Your task to perform on an android device: Open settings Image 0: 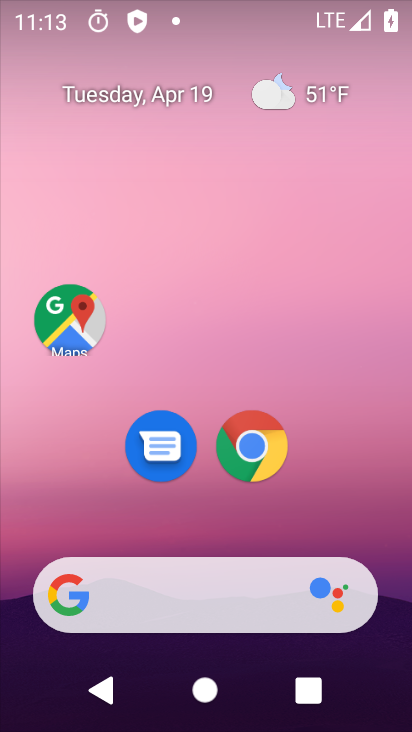
Step 0: click (250, 457)
Your task to perform on an android device: Open settings Image 1: 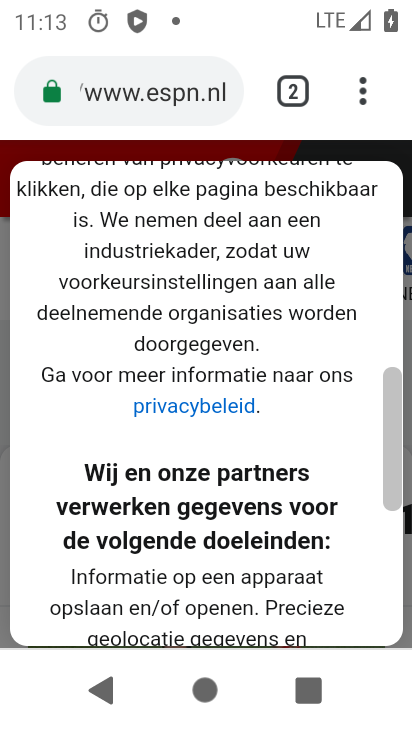
Step 1: press home button
Your task to perform on an android device: Open settings Image 2: 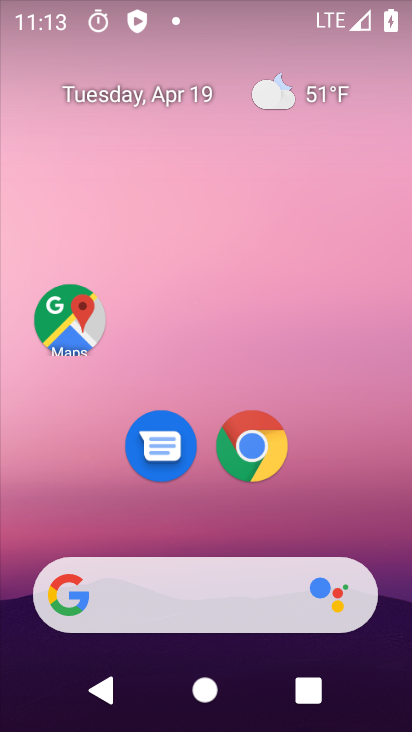
Step 2: drag from (303, 284) to (279, 150)
Your task to perform on an android device: Open settings Image 3: 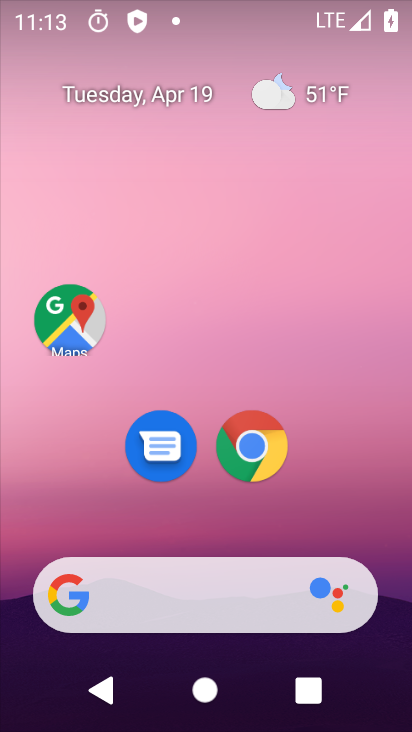
Step 3: drag from (389, 524) to (355, 97)
Your task to perform on an android device: Open settings Image 4: 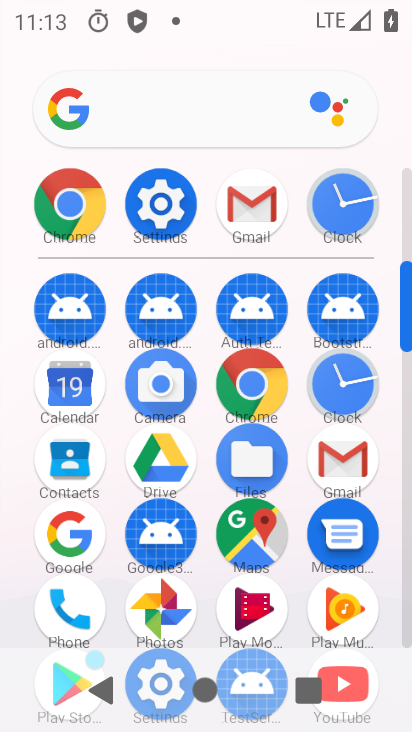
Step 4: click (157, 201)
Your task to perform on an android device: Open settings Image 5: 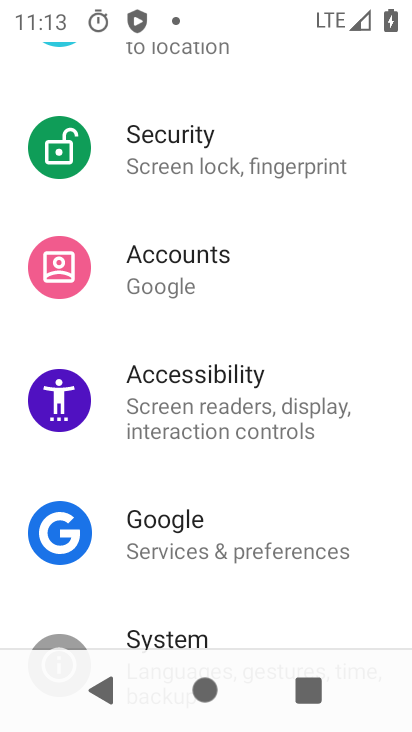
Step 5: task complete